Your task to perform on an android device: Open the map Image 0: 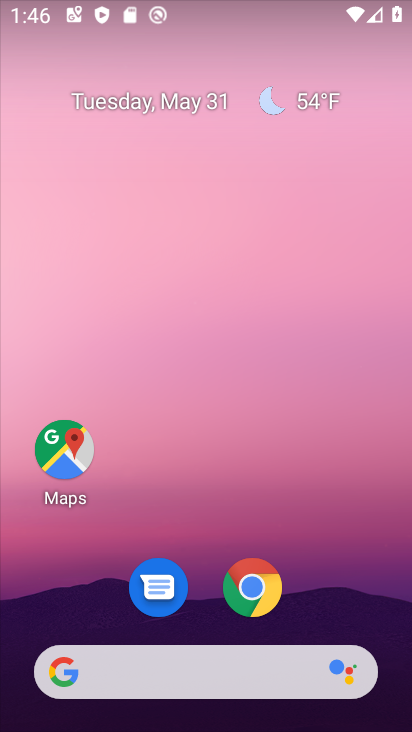
Step 0: drag from (206, 631) to (261, 137)
Your task to perform on an android device: Open the map Image 1: 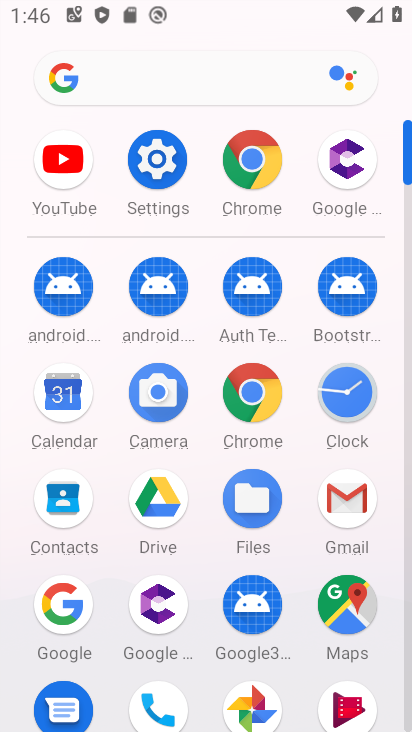
Step 1: click (336, 610)
Your task to perform on an android device: Open the map Image 2: 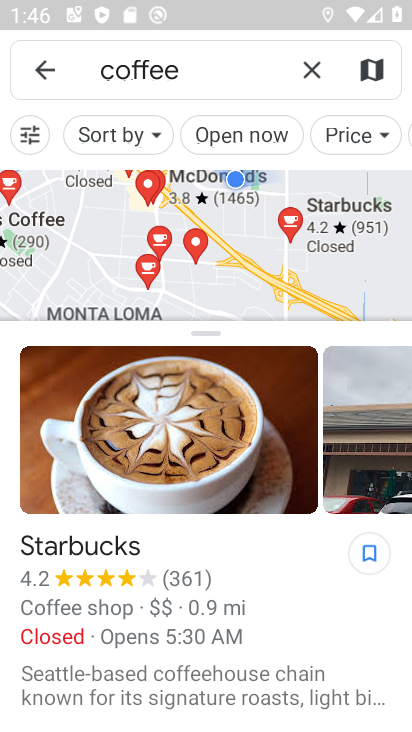
Step 2: task complete